Your task to perform on an android device: Go to Google Image 0: 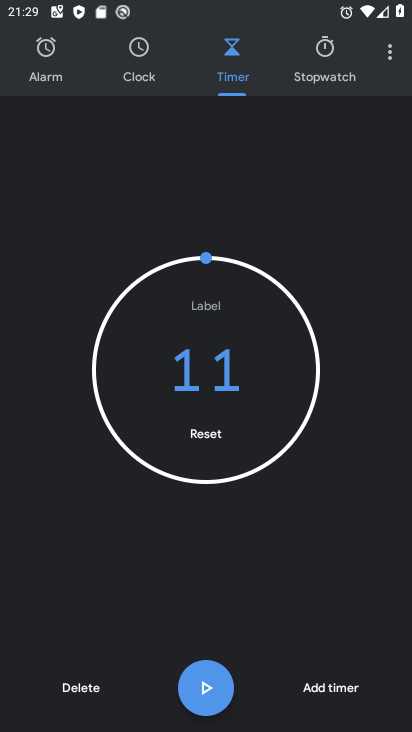
Step 0: press home button
Your task to perform on an android device: Go to Google Image 1: 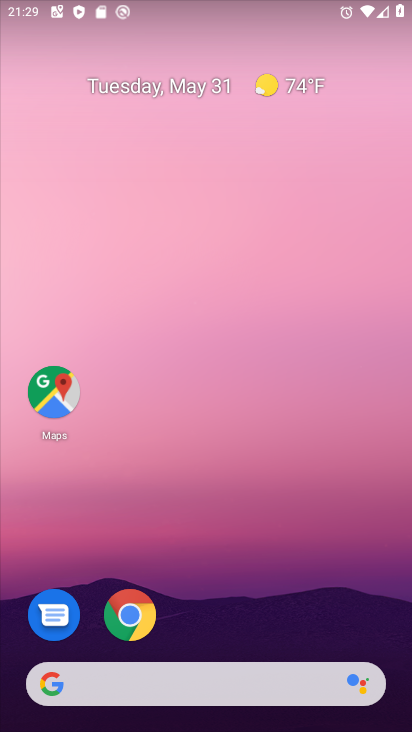
Step 1: drag from (216, 634) to (202, 226)
Your task to perform on an android device: Go to Google Image 2: 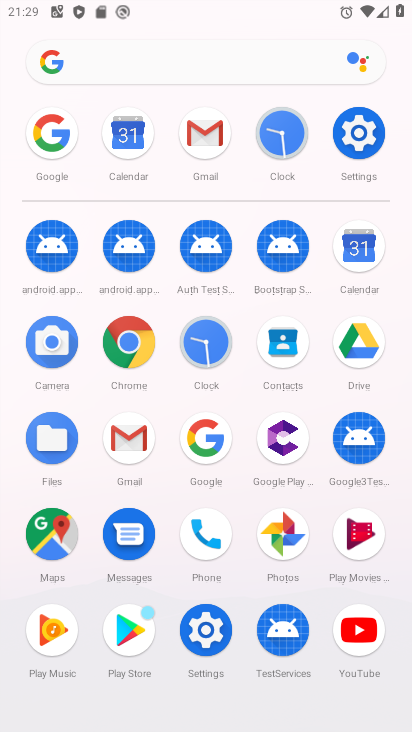
Step 2: click (66, 146)
Your task to perform on an android device: Go to Google Image 3: 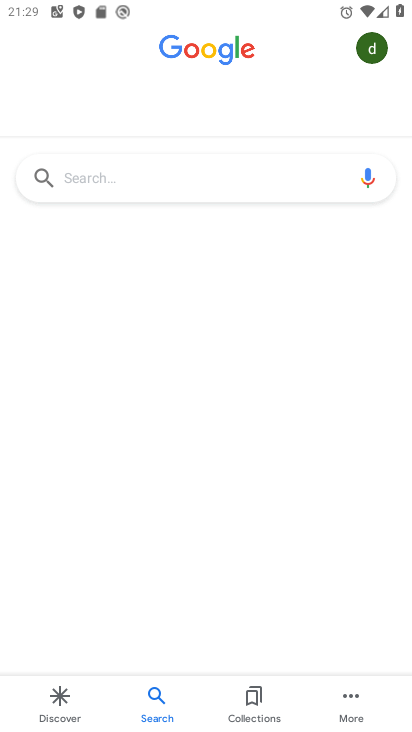
Step 3: task complete